Your task to perform on an android device: empty trash in the gmail app Image 0: 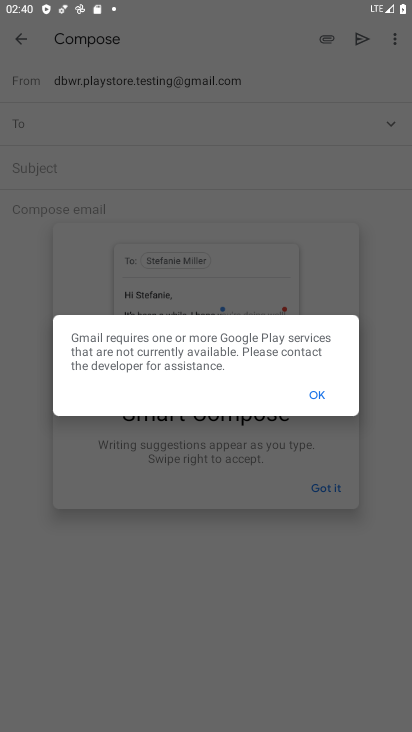
Step 0: press home button
Your task to perform on an android device: empty trash in the gmail app Image 1: 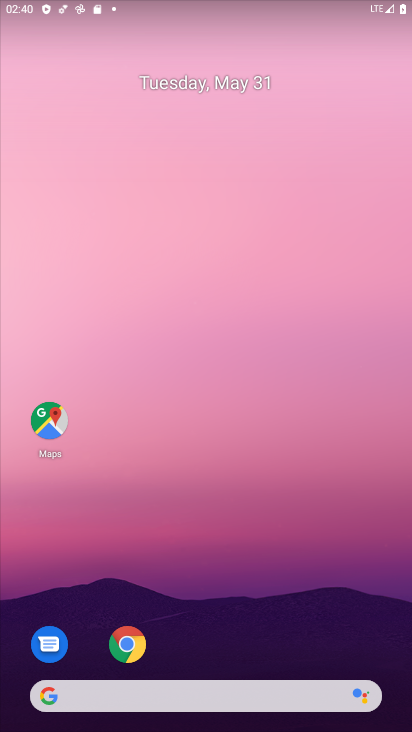
Step 1: drag from (295, 616) to (247, 132)
Your task to perform on an android device: empty trash in the gmail app Image 2: 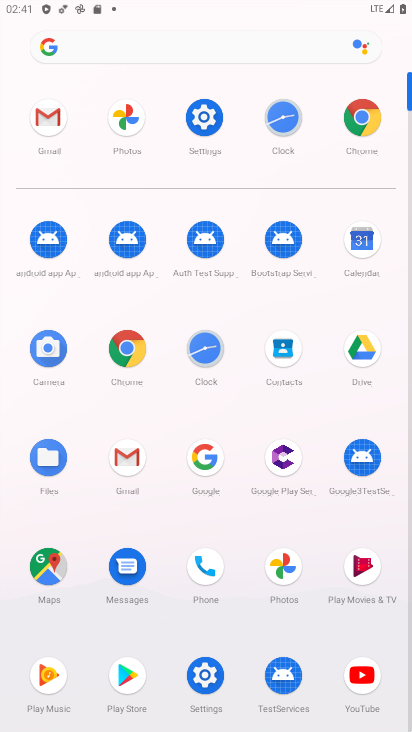
Step 2: click (125, 459)
Your task to perform on an android device: empty trash in the gmail app Image 3: 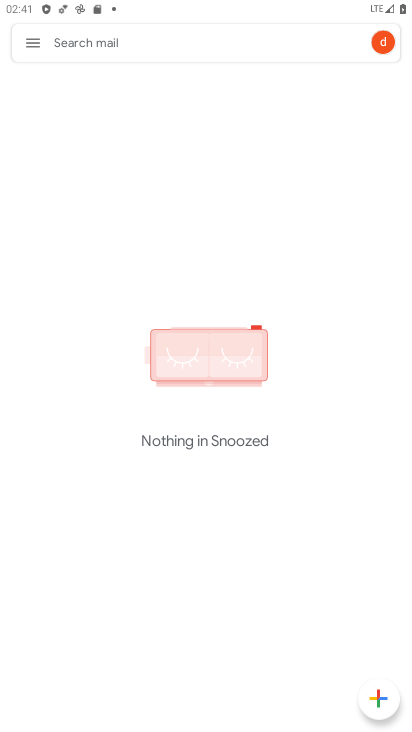
Step 3: click (34, 32)
Your task to perform on an android device: empty trash in the gmail app Image 4: 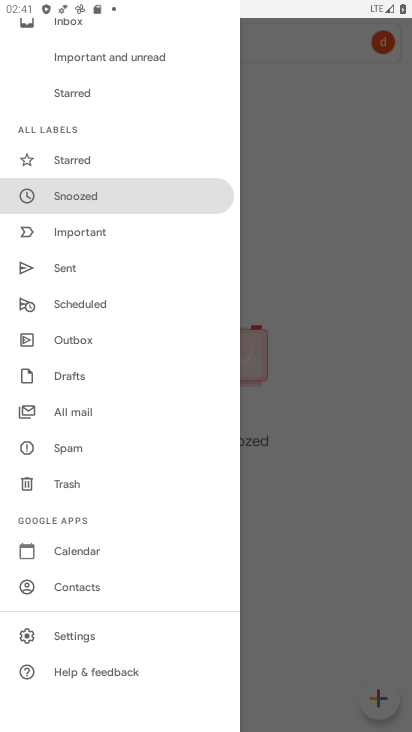
Step 4: click (74, 485)
Your task to perform on an android device: empty trash in the gmail app Image 5: 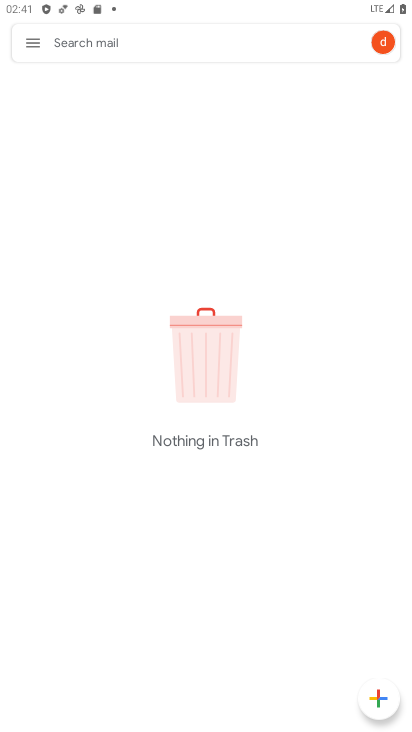
Step 5: task complete